Your task to perform on an android device: Open the web browser Image 0: 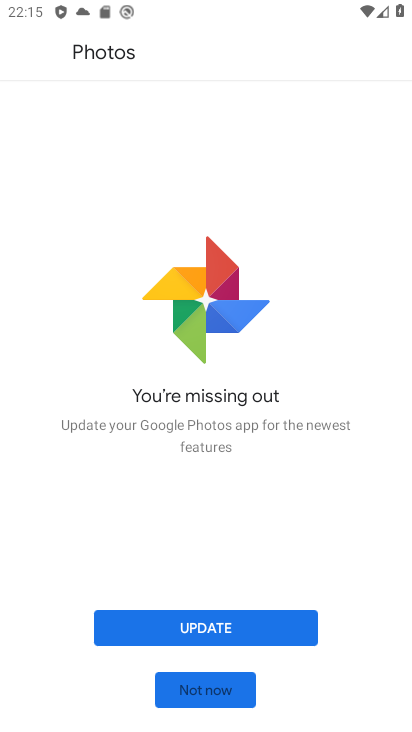
Step 0: press home button
Your task to perform on an android device: Open the web browser Image 1: 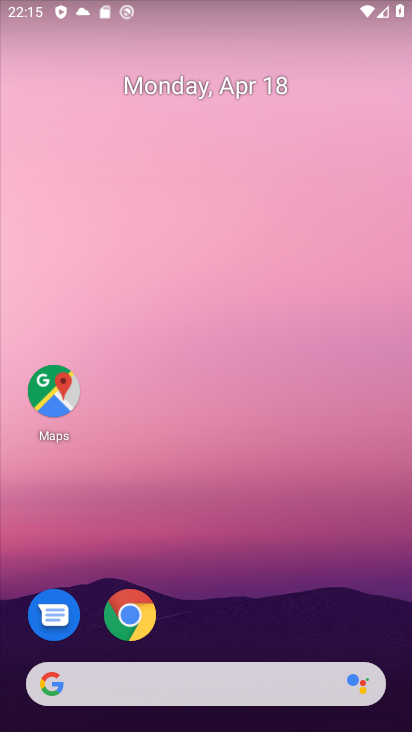
Step 1: click (129, 621)
Your task to perform on an android device: Open the web browser Image 2: 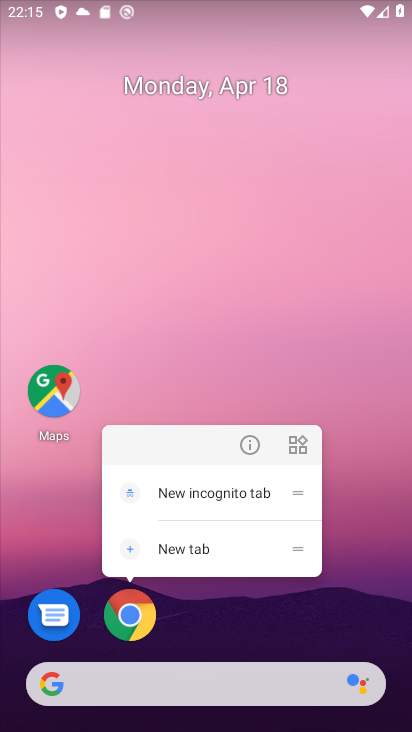
Step 2: click (127, 620)
Your task to perform on an android device: Open the web browser Image 3: 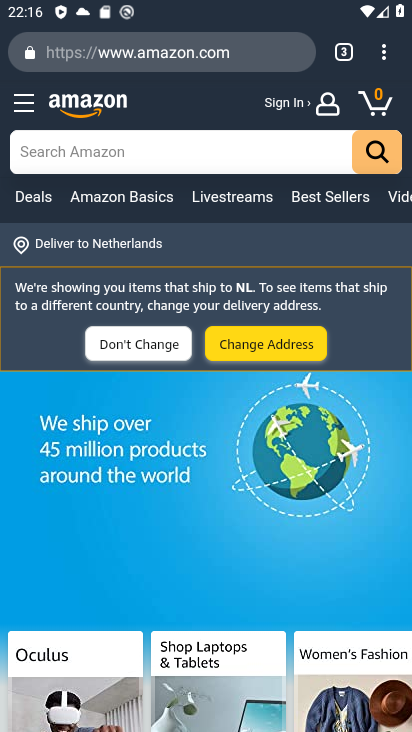
Step 3: task complete